Your task to perform on an android device: See recent photos Image 0: 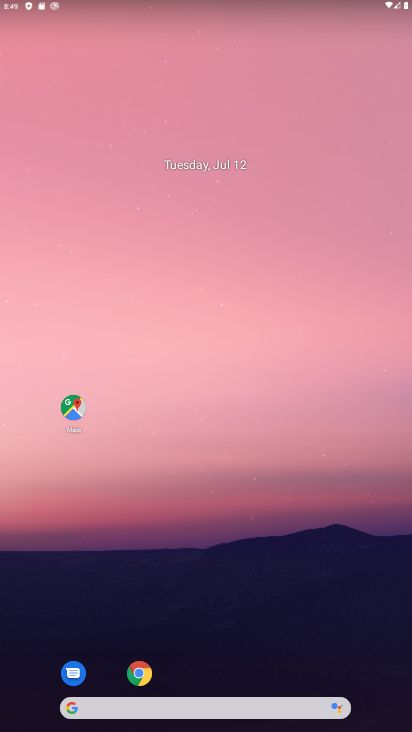
Step 0: drag from (192, 701) to (189, 260)
Your task to perform on an android device: See recent photos Image 1: 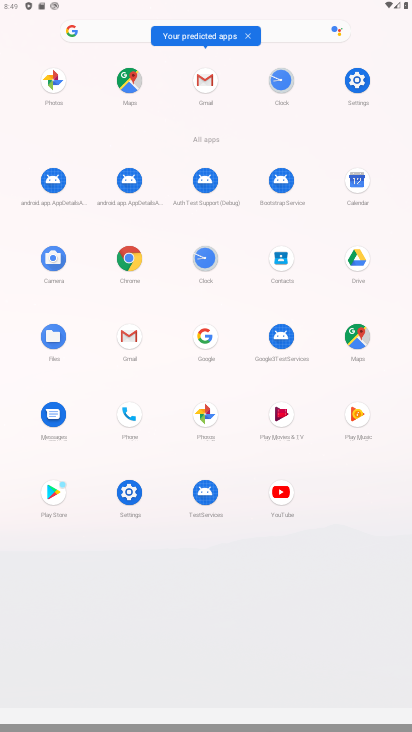
Step 1: click (203, 412)
Your task to perform on an android device: See recent photos Image 2: 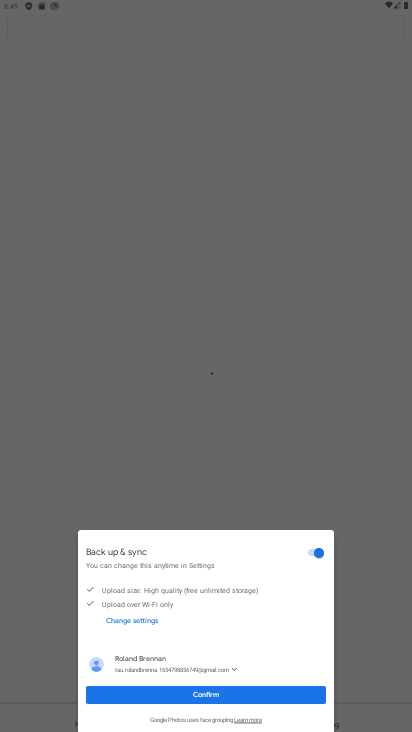
Step 2: click (212, 690)
Your task to perform on an android device: See recent photos Image 3: 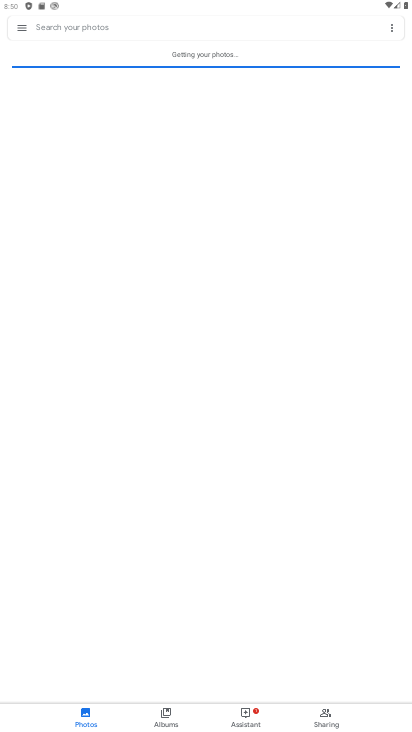
Step 3: task complete